Your task to perform on an android device: Empty the shopping cart on amazon. Search for alienware aurora on amazon, select the first entry, add it to the cart, then select checkout. Image 0: 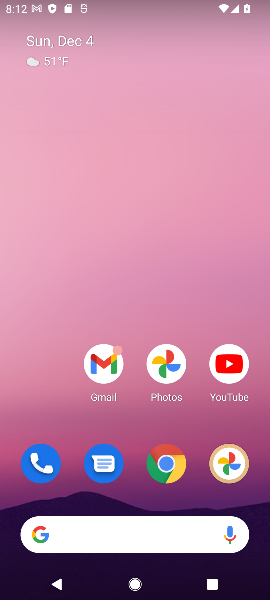
Step 0: click (130, 535)
Your task to perform on an android device: Empty the shopping cart on amazon. Search for alienware aurora on amazon, select the first entry, add it to the cart, then select checkout. Image 1: 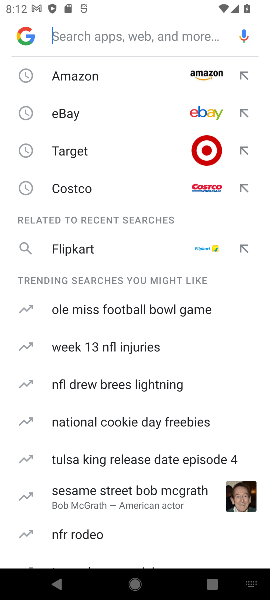
Step 1: click (112, 83)
Your task to perform on an android device: Empty the shopping cart on amazon. Search for alienware aurora on amazon, select the first entry, add it to the cart, then select checkout. Image 2: 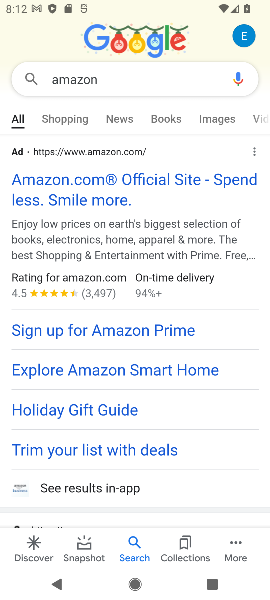
Step 2: click (76, 174)
Your task to perform on an android device: Empty the shopping cart on amazon. Search for alienware aurora on amazon, select the first entry, add it to the cart, then select checkout. Image 3: 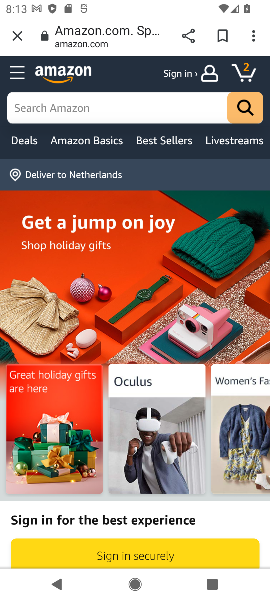
Step 3: click (61, 100)
Your task to perform on an android device: Empty the shopping cart on amazon. Search for alienware aurora on amazon, select the first entry, add it to the cart, then select checkout. Image 4: 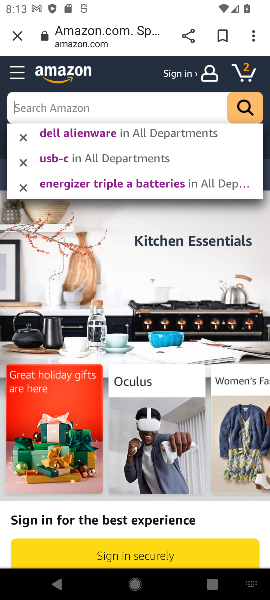
Step 4: type "alienware aura"
Your task to perform on an android device: Empty the shopping cart on amazon. Search for alienware aurora on amazon, select the first entry, add it to the cart, then select checkout. Image 5: 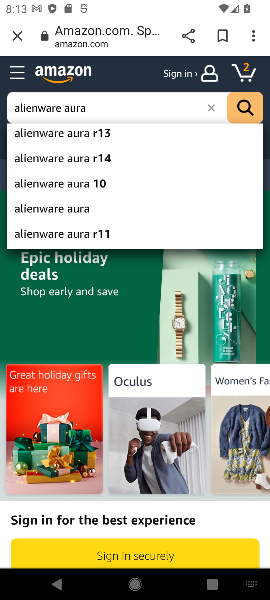
Step 5: click (233, 107)
Your task to perform on an android device: Empty the shopping cart on amazon. Search for alienware aurora on amazon, select the first entry, add it to the cart, then select checkout. Image 6: 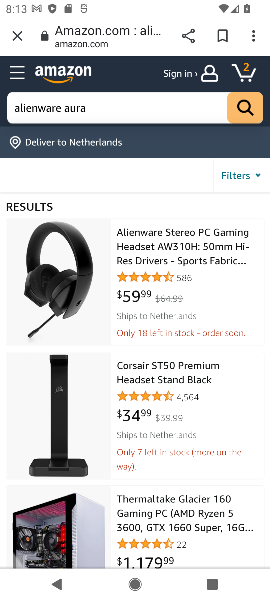
Step 6: click (196, 232)
Your task to perform on an android device: Empty the shopping cart on amazon. Search for alienware aurora on amazon, select the first entry, add it to the cart, then select checkout. Image 7: 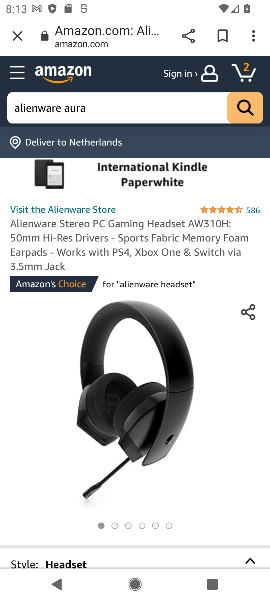
Step 7: task complete